Your task to perform on an android device: see tabs open on other devices in the chrome app Image 0: 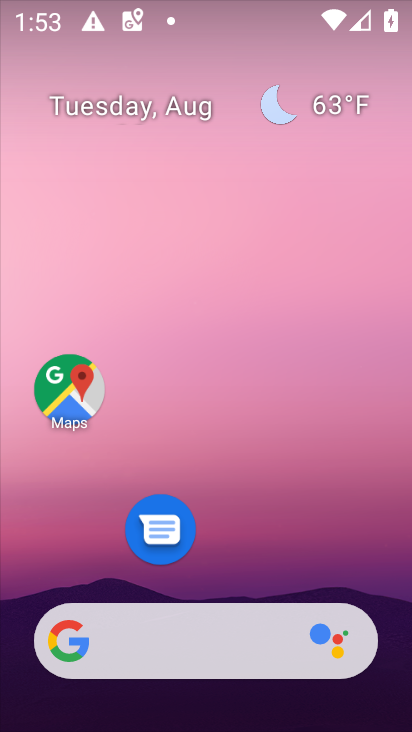
Step 0: drag from (253, 560) to (293, 277)
Your task to perform on an android device: see tabs open on other devices in the chrome app Image 1: 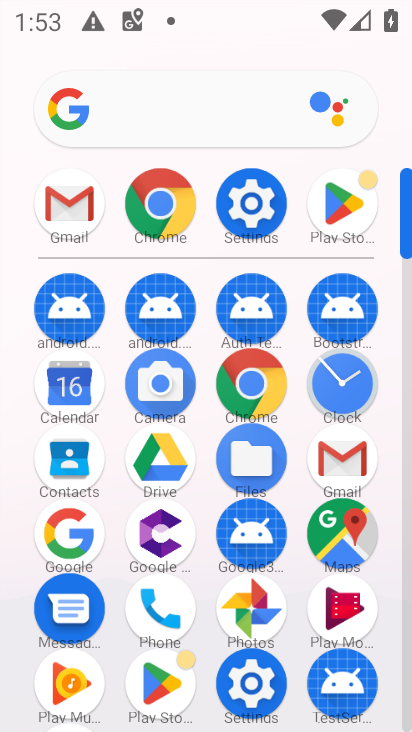
Step 1: click (163, 206)
Your task to perform on an android device: see tabs open on other devices in the chrome app Image 2: 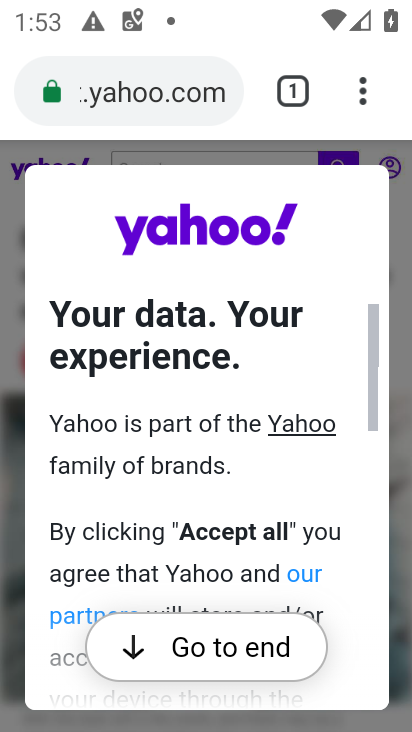
Step 2: click (277, 82)
Your task to perform on an android device: see tabs open on other devices in the chrome app Image 3: 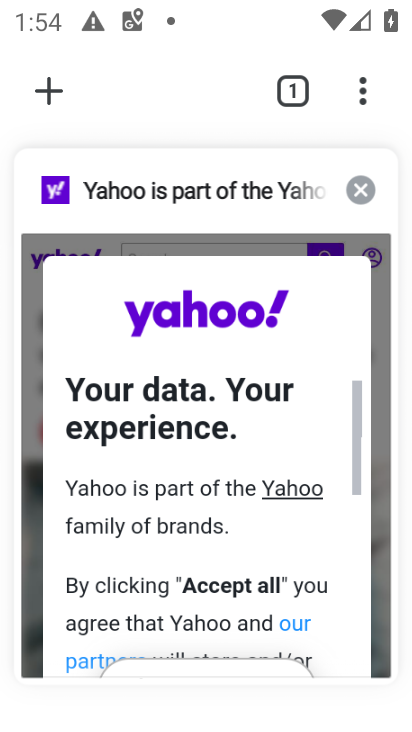
Step 3: click (362, 79)
Your task to perform on an android device: see tabs open on other devices in the chrome app Image 4: 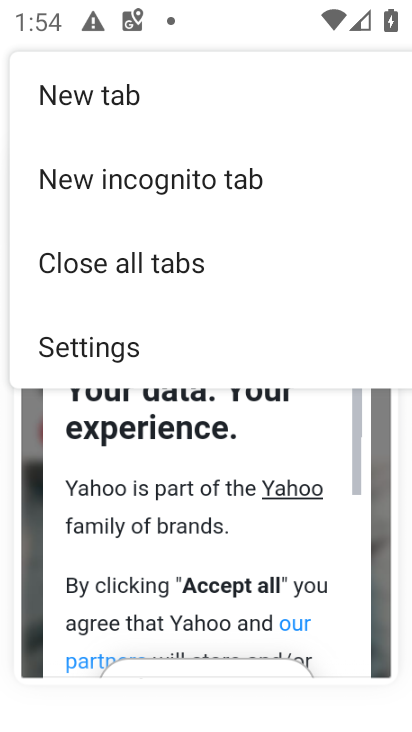
Step 4: click (167, 266)
Your task to perform on an android device: see tabs open on other devices in the chrome app Image 5: 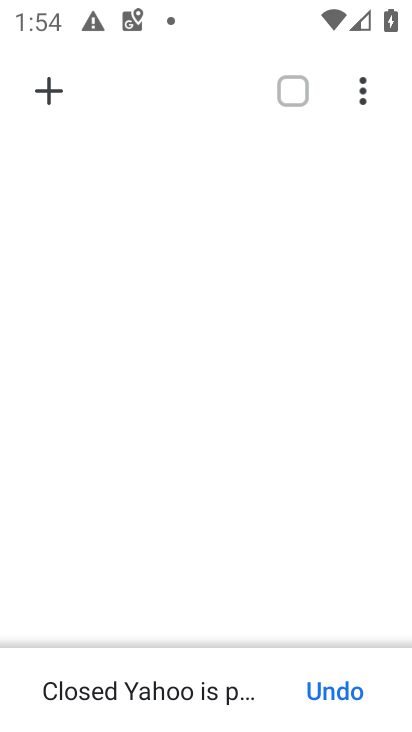
Step 5: click (353, 102)
Your task to perform on an android device: see tabs open on other devices in the chrome app Image 6: 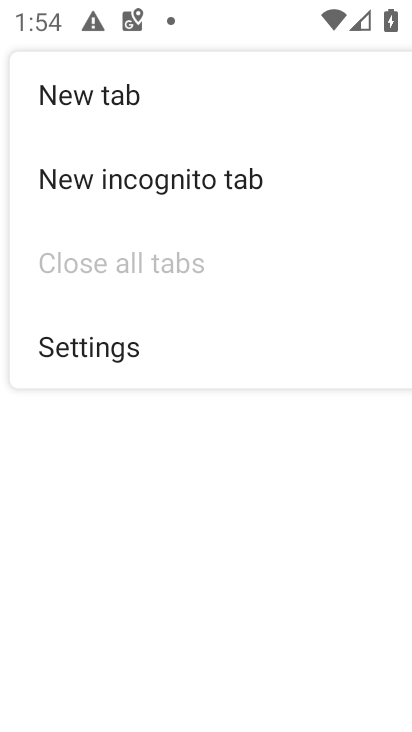
Step 6: task complete